Your task to perform on an android device: What's on my calendar tomorrow? Image 0: 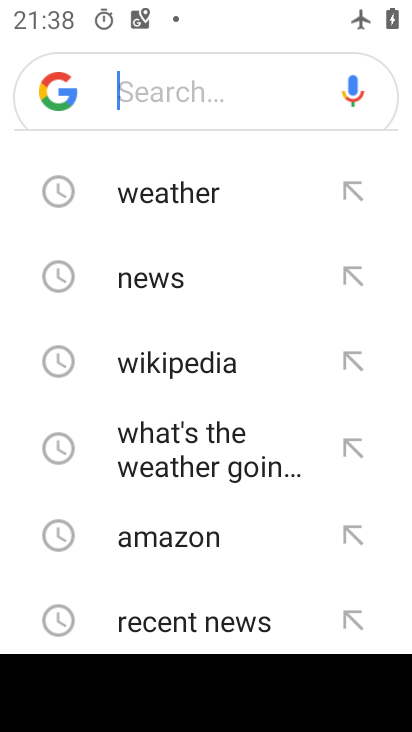
Step 0: press home button
Your task to perform on an android device: What's on my calendar tomorrow? Image 1: 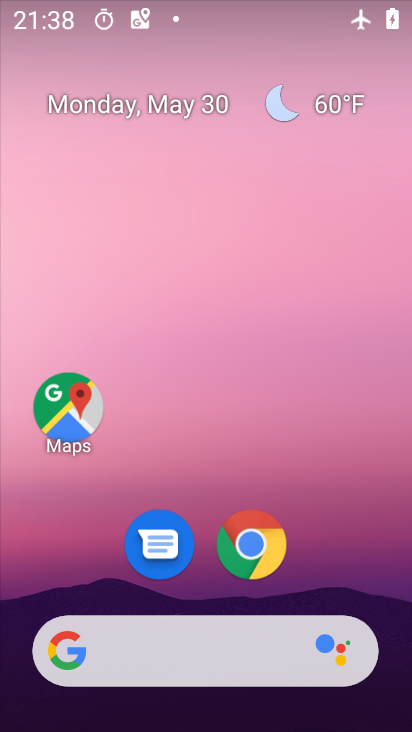
Step 1: drag from (335, 575) to (267, 223)
Your task to perform on an android device: What's on my calendar tomorrow? Image 2: 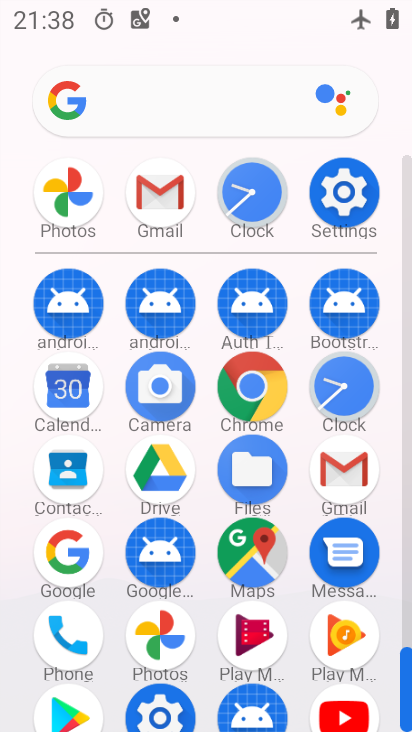
Step 2: click (69, 389)
Your task to perform on an android device: What's on my calendar tomorrow? Image 3: 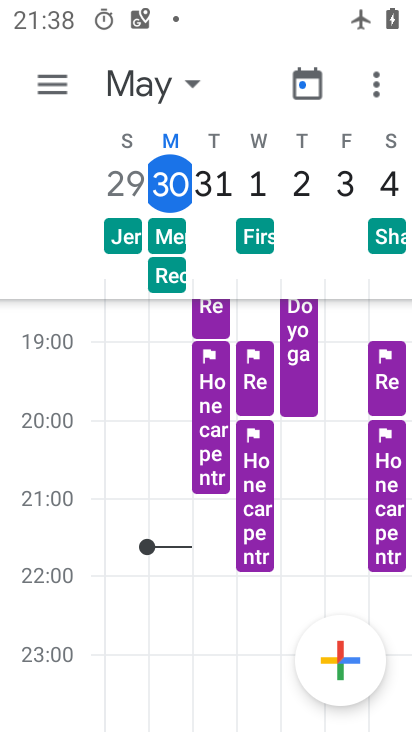
Step 3: click (306, 90)
Your task to perform on an android device: What's on my calendar tomorrow? Image 4: 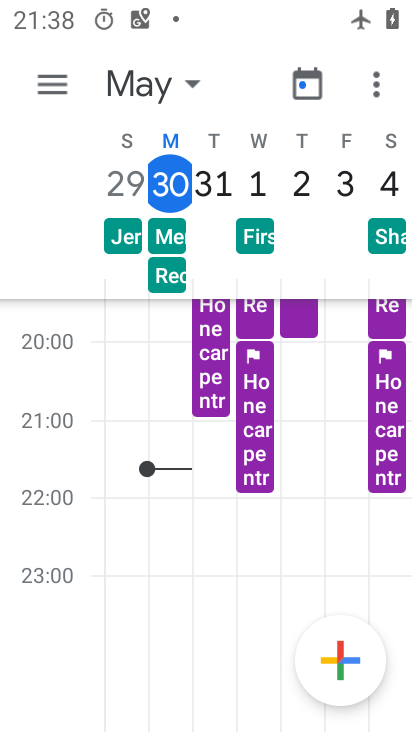
Step 4: click (199, 82)
Your task to perform on an android device: What's on my calendar tomorrow? Image 5: 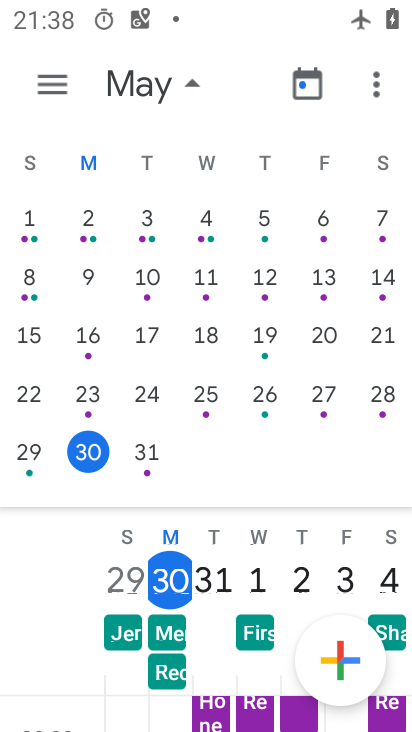
Step 5: click (161, 465)
Your task to perform on an android device: What's on my calendar tomorrow? Image 6: 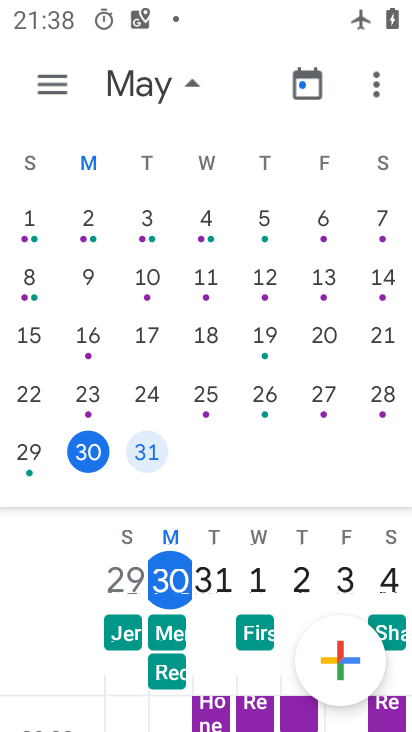
Step 6: click (61, 90)
Your task to perform on an android device: What's on my calendar tomorrow? Image 7: 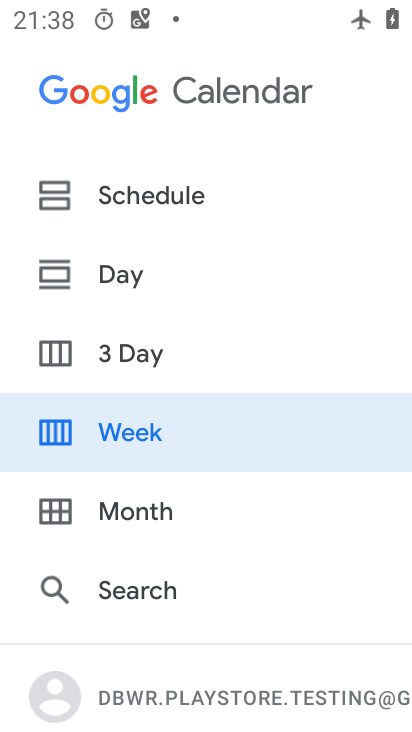
Step 7: click (160, 205)
Your task to perform on an android device: What's on my calendar tomorrow? Image 8: 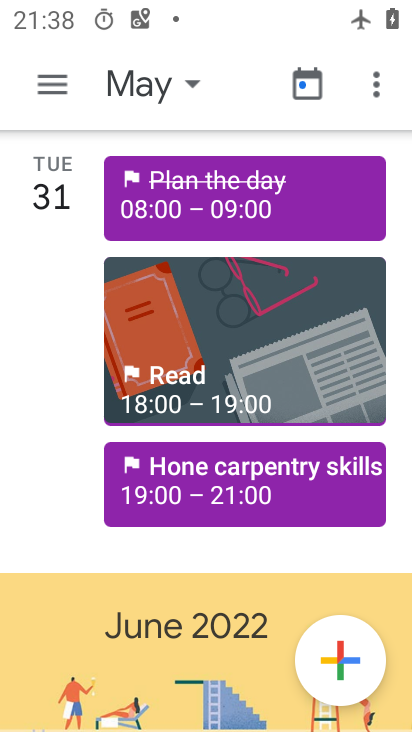
Step 8: task complete